Your task to perform on an android device: toggle location history Image 0: 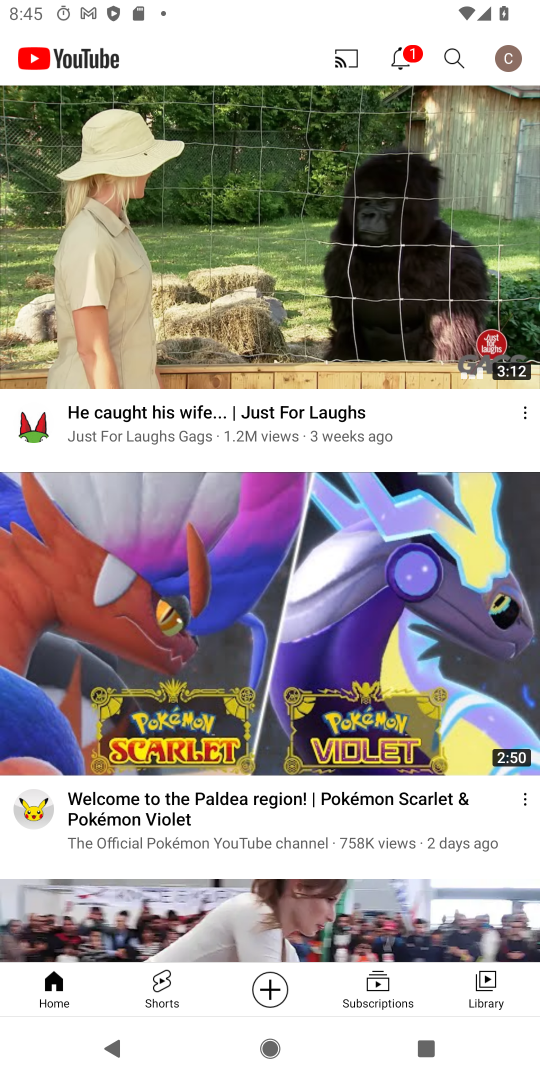
Step 0: press home button
Your task to perform on an android device: toggle location history Image 1: 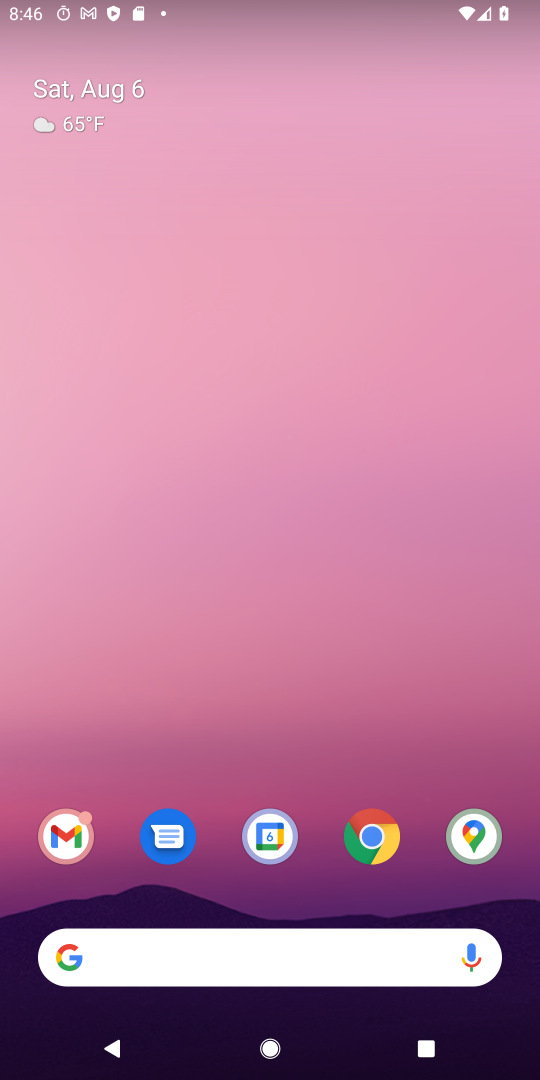
Step 1: drag from (445, 873) to (357, 151)
Your task to perform on an android device: toggle location history Image 2: 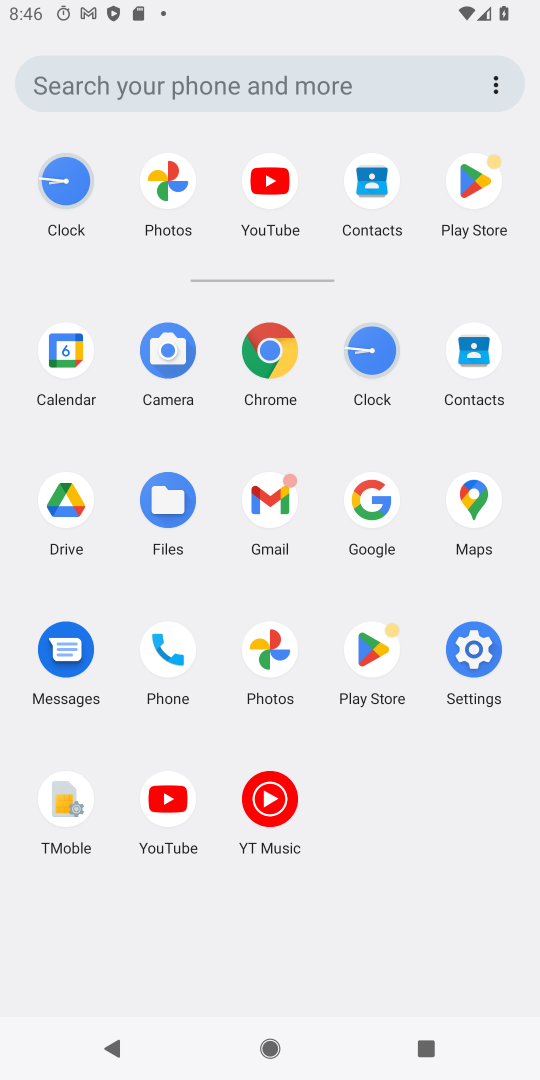
Step 2: click (483, 666)
Your task to perform on an android device: toggle location history Image 3: 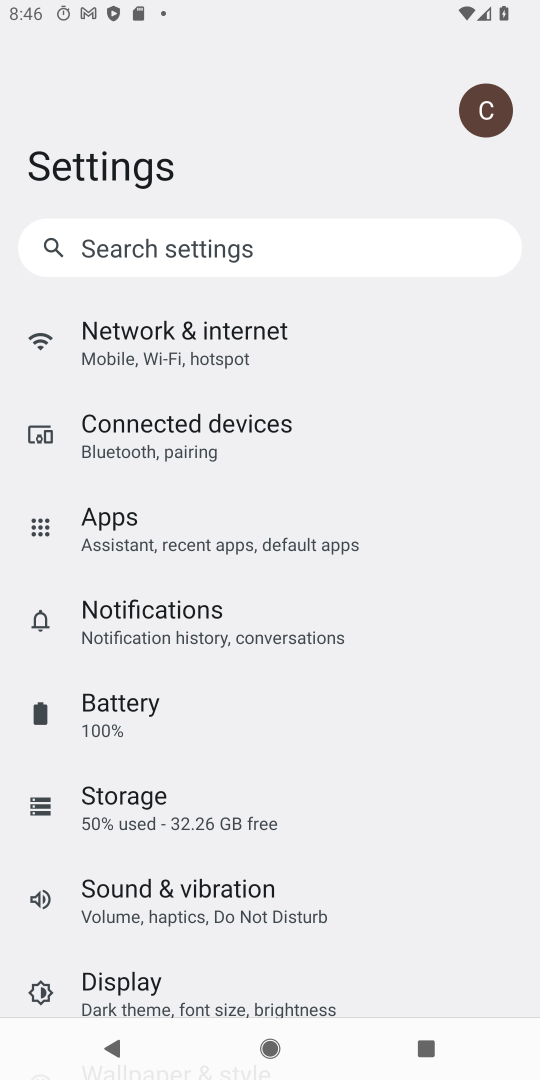
Step 3: drag from (183, 937) to (276, 349)
Your task to perform on an android device: toggle location history Image 4: 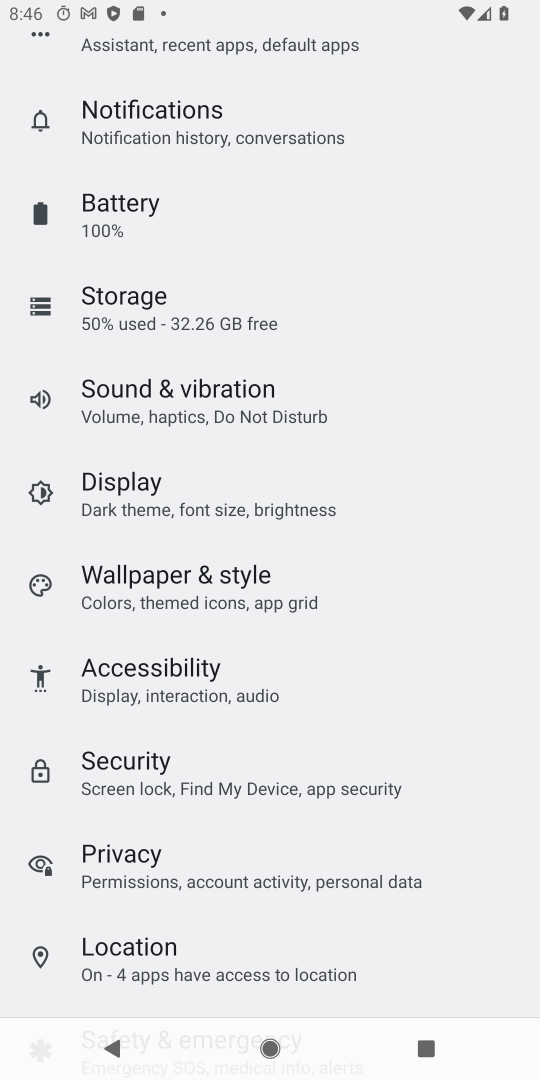
Step 4: click (141, 951)
Your task to perform on an android device: toggle location history Image 5: 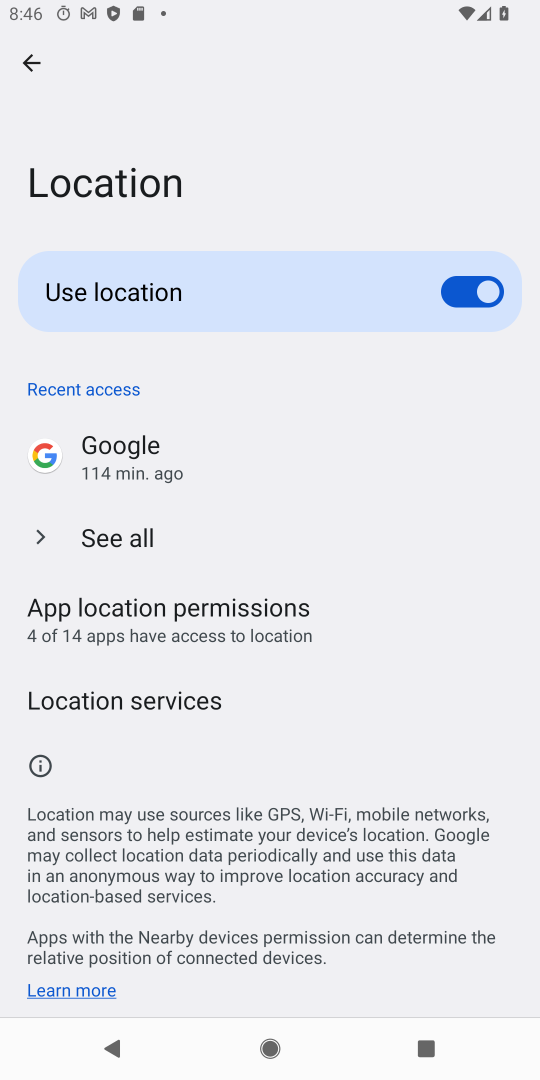
Step 5: click (107, 707)
Your task to perform on an android device: toggle location history Image 6: 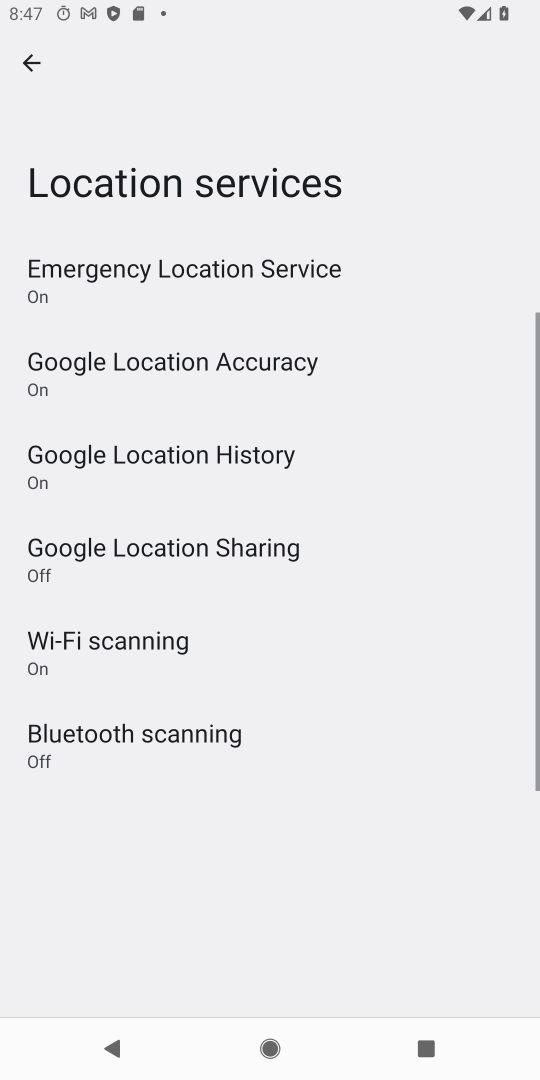
Step 6: click (243, 456)
Your task to perform on an android device: toggle location history Image 7: 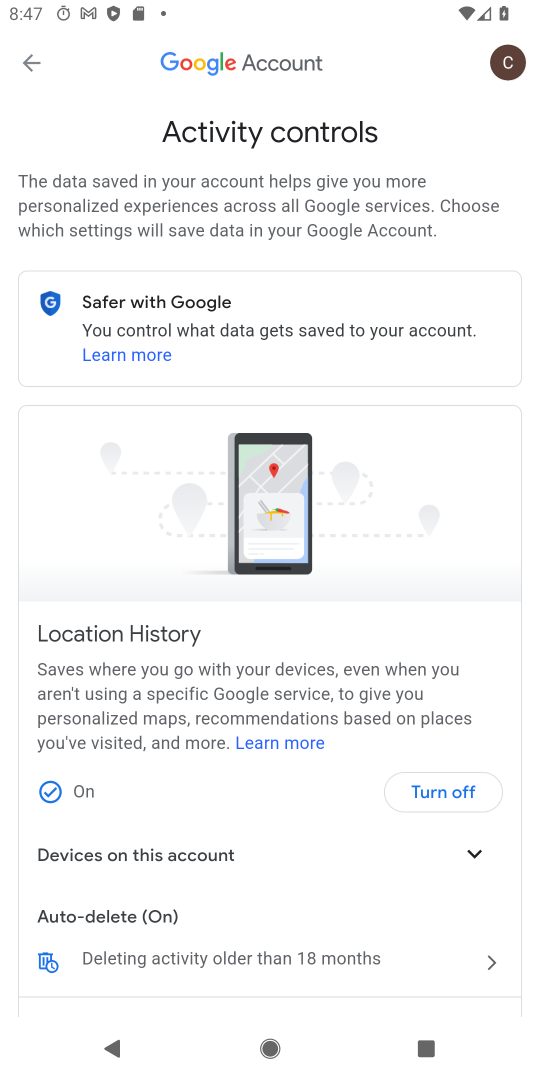
Step 7: click (459, 794)
Your task to perform on an android device: toggle location history Image 8: 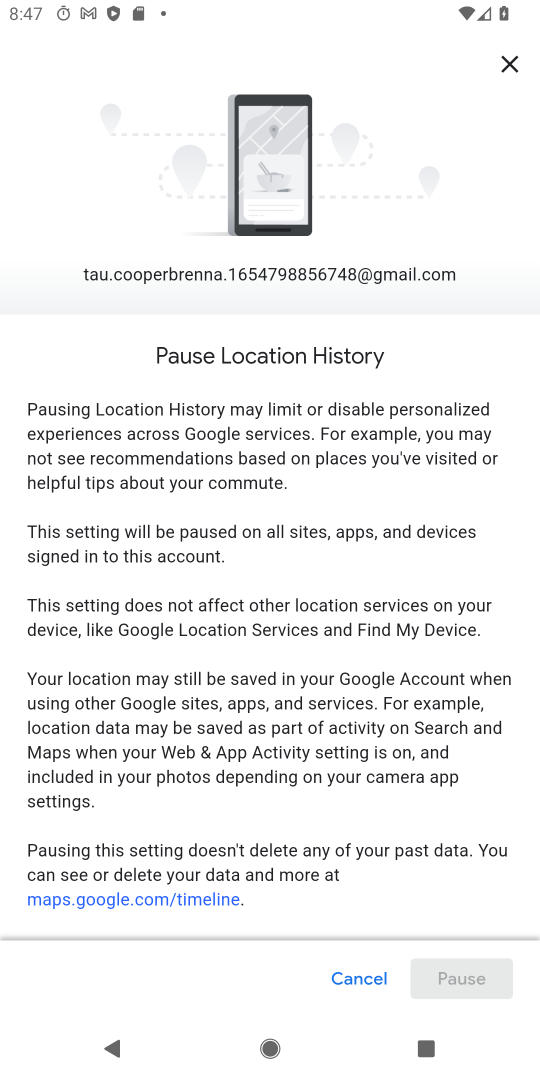
Step 8: task complete